Your task to perform on an android device: see sites visited before in the chrome app Image 0: 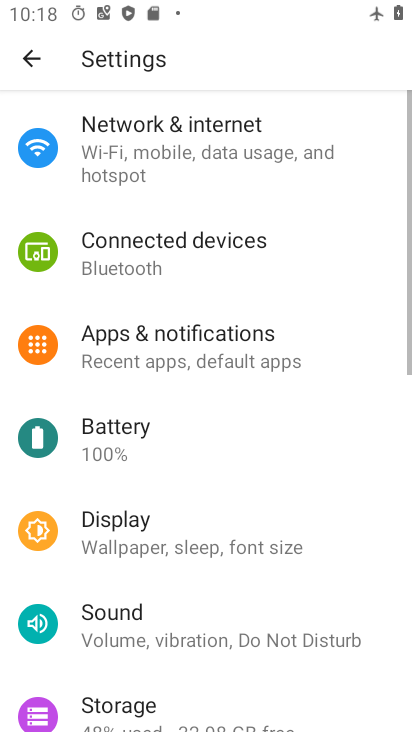
Step 0: press back button
Your task to perform on an android device: see sites visited before in the chrome app Image 1: 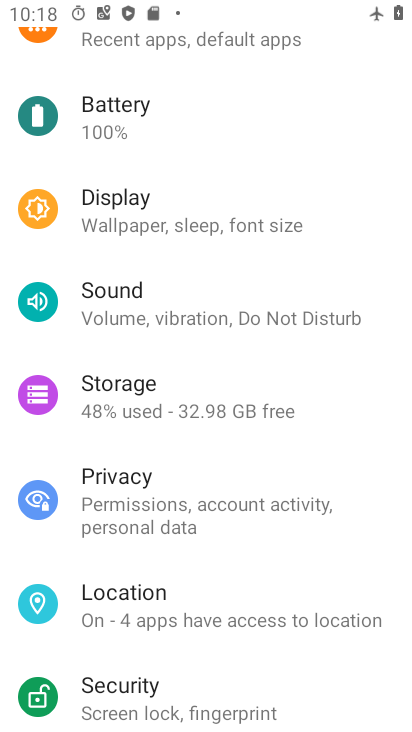
Step 1: press back button
Your task to perform on an android device: see sites visited before in the chrome app Image 2: 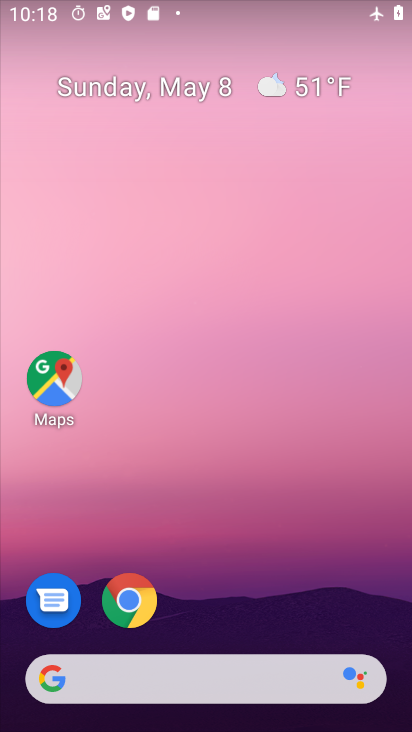
Step 2: drag from (224, 596) to (225, 0)
Your task to perform on an android device: see sites visited before in the chrome app Image 3: 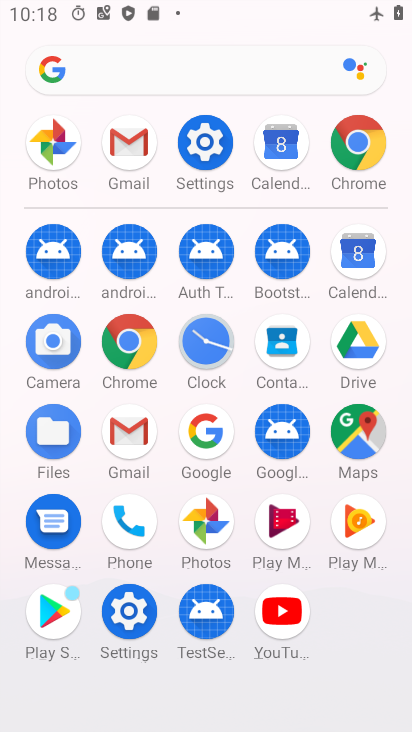
Step 3: click (129, 337)
Your task to perform on an android device: see sites visited before in the chrome app Image 4: 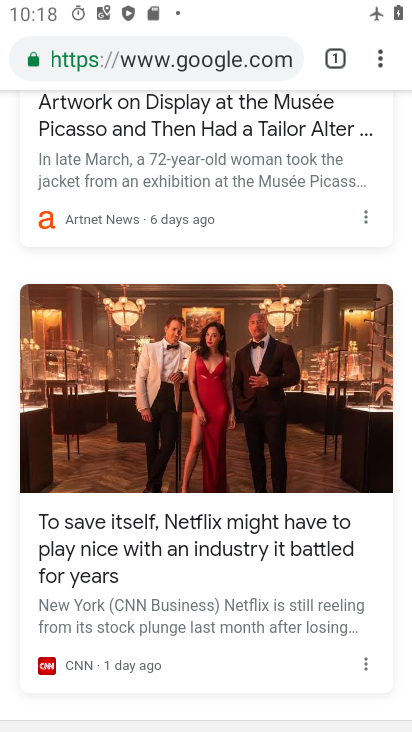
Step 4: drag from (383, 55) to (214, 639)
Your task to perform on an android device: see sites visited before in the chrome app Image 5: 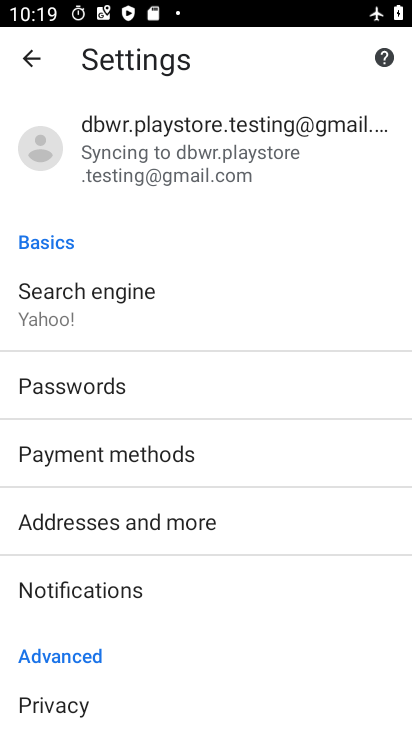
Step 5: drag from (238, 652) to (284, 149)
Your task to perform on an android device: see sites visited before in the chrome app Image 6: 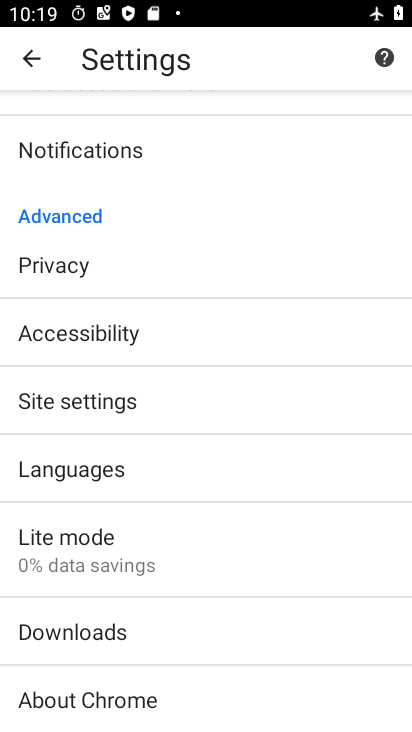
Step 6: drag from (227, 553) to (245, 165)
Your task to perform on an android device: see sites visited before in the chrome app Image 7: 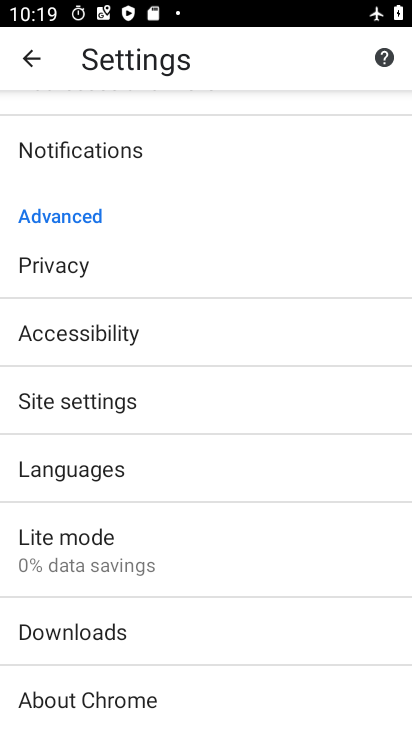
Step 7: click (34, 60)
Your task to perform on an android device: see sites visited before in the chrome app Image 8: 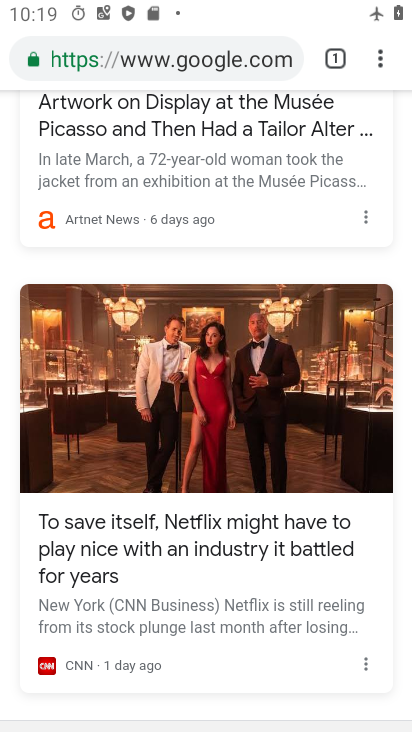
Step 8: task complete